Your task to perform on an android device: turn on the 12-hour format for clock Image 0: 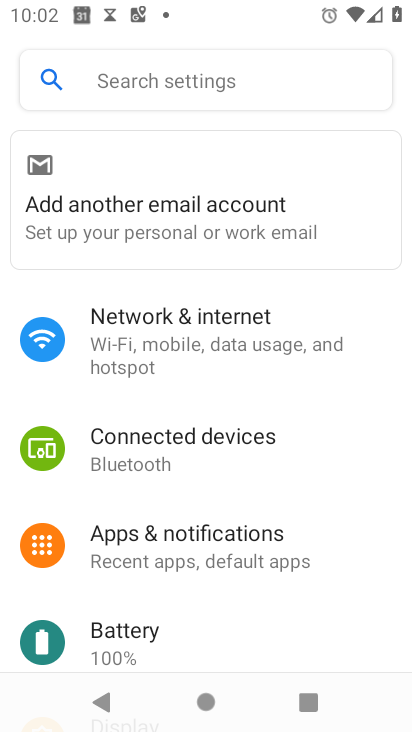
Step 0: press home button
Your task to perform on an android device: turn on the 12-hour format for clock Image 1: 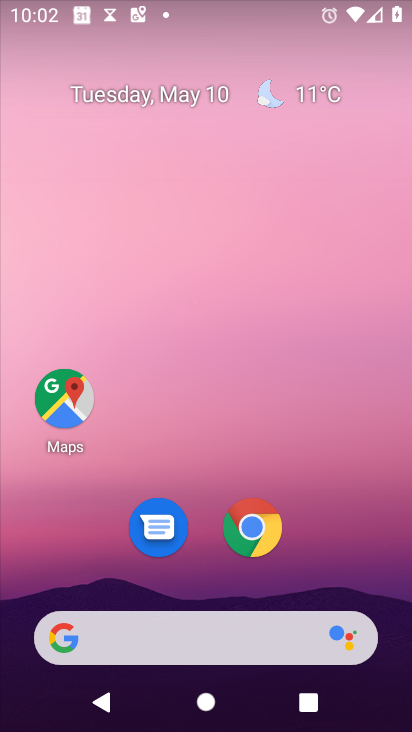
Step 1: drag from (354, 531) to (337, 74)
Your task to perform on an android device: turn on the 12-hour format for clock Image 2: 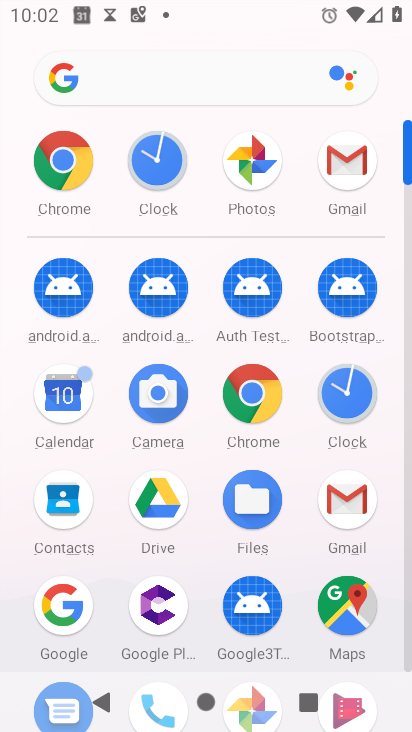
Step 2: click (145, 158)
Your task to perform on an android device: turn on the 12-hour format for clock Image 3: 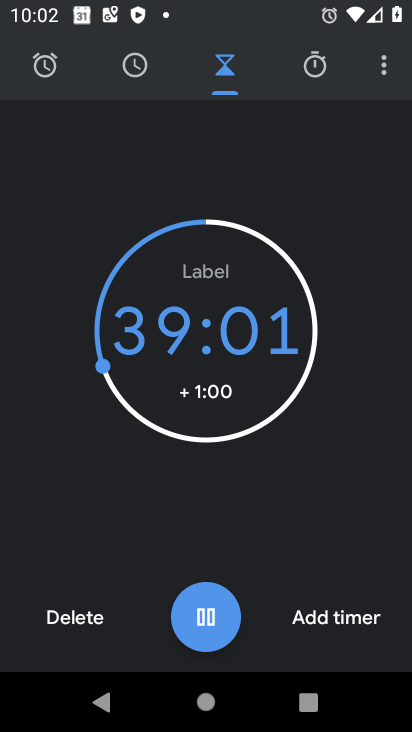
Step 3: click (377, 73)
Your task to perform on an android device: turn on the 12-hour format for clock Image 4: 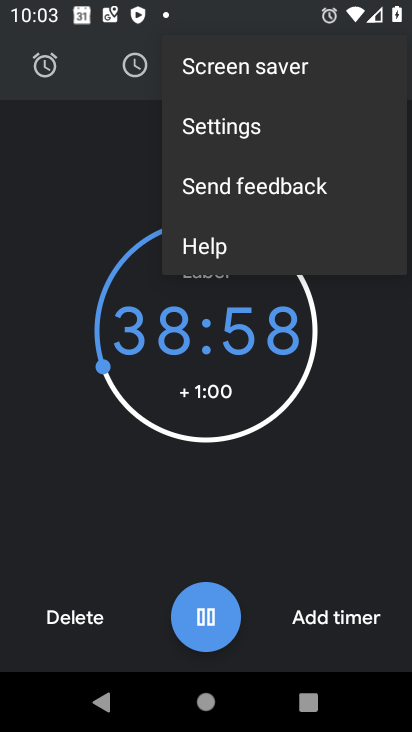
Step 4: click (238, 135)
Your task to perform on an android device: turn on the 12-hour format for clock Image 5: 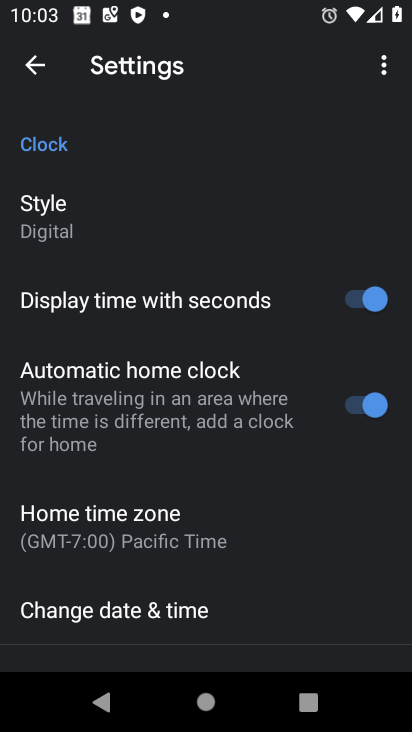
Step 5: drag from (183, 521) to (164, 321)
Your task to perform on an android device: turn on the 12-hour format for clock Image 6: 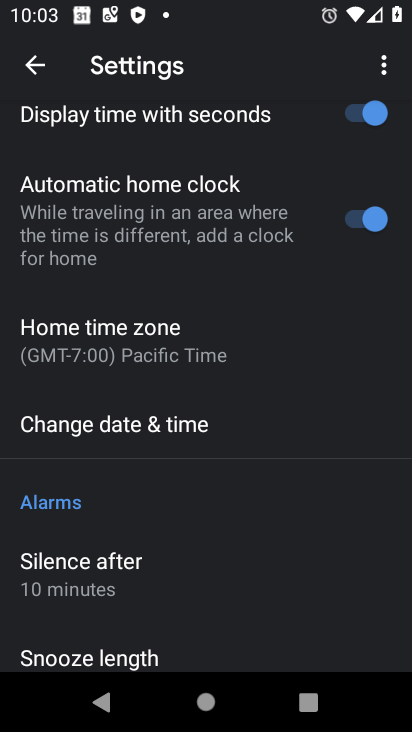
Step 6: click (162, 419)
Your task to perform on an android device: turn on the 12-hour format for clock Image 7: 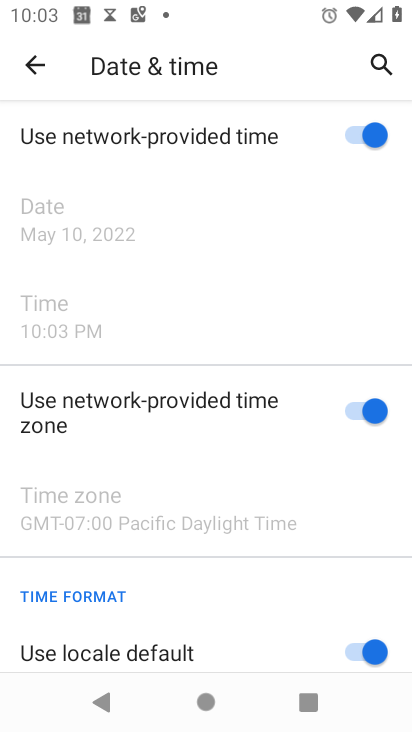
Step 7: task complete